Your task to perform on an android device: see tabs open on other devices in the chrome app Image 0: 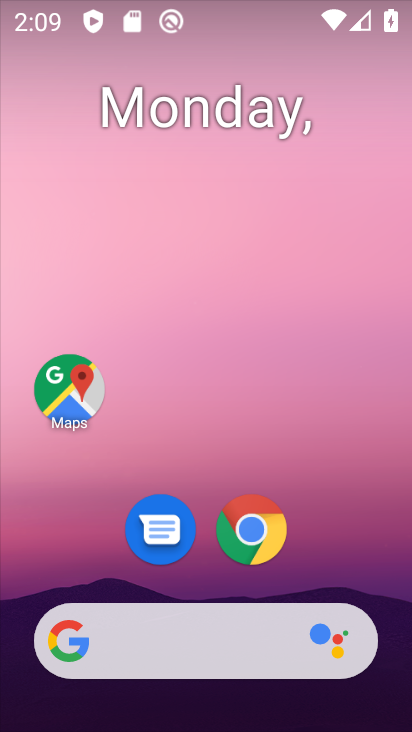
Step 0: click (256, 526)
Your task to perform on an android device: see tabs open on other devices in the chrome app Image 1: 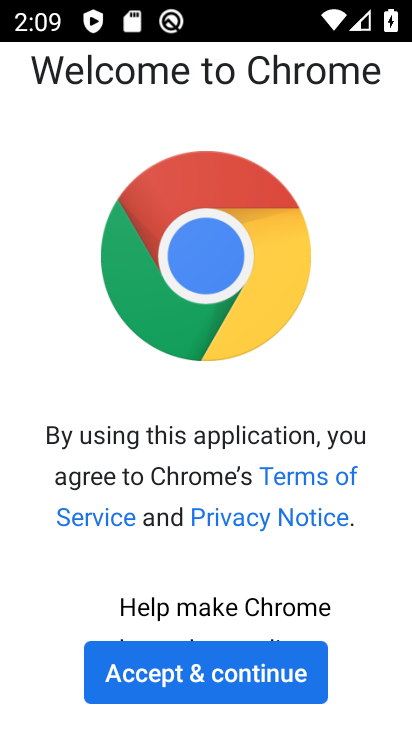
Step 1: click (260, 684)
Your task to perform on an android device: see tabs open on other devices in the chrome app Image 2: 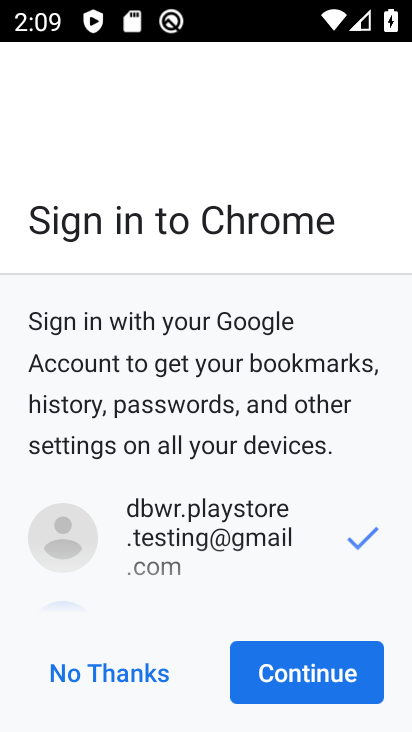
Step 2: click (311, 683)
Your task to perform on an android device: see tabs open on other devices in the chrome app Image 3: 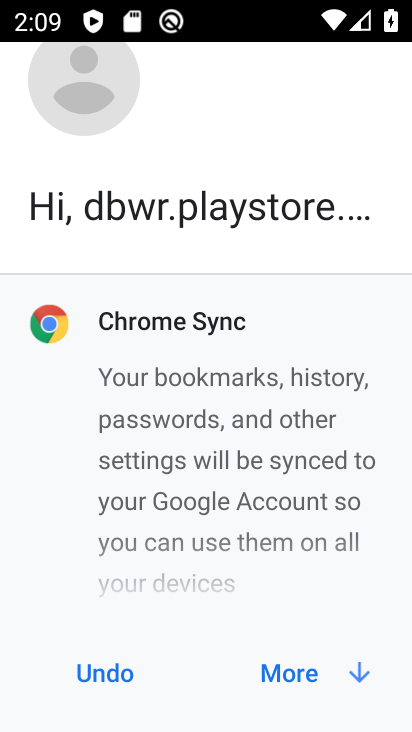
Step 3: click (311, 683)
Your task to perform on an android device: see tabs open on other devices in the chrome app Image 4: 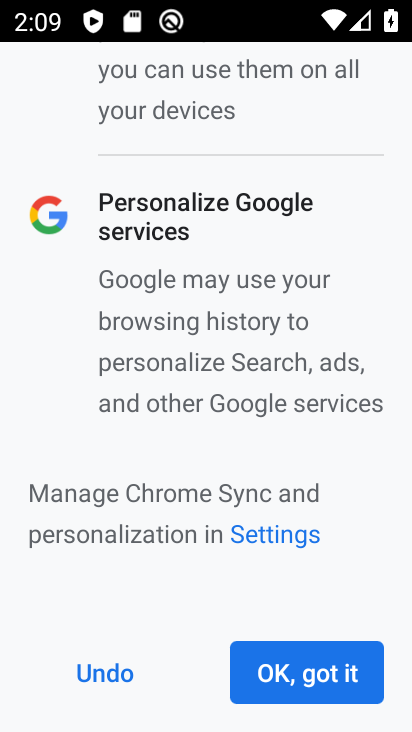
Step 4: click (311, 683)
Your task to perform on an android device: see tabs open on other devices in the chrome app Image 5: 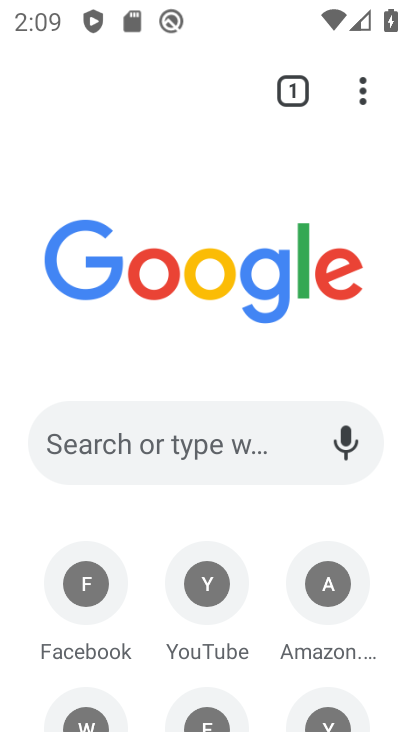
Step 5: task complete